Your task to perform on an android device: Open ESPN.com Image 0: 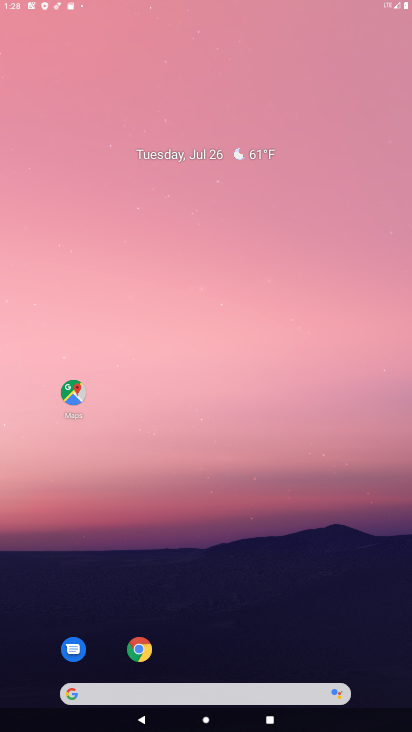
Step 0: click (142, 649)
Your task to perform on an android device: Open ESPN.com Image 1: 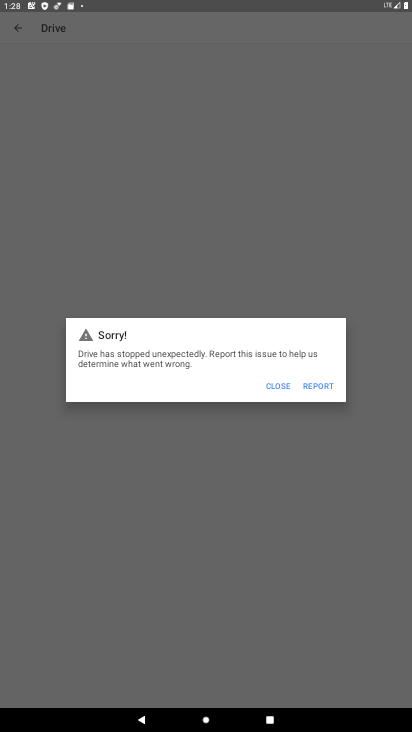
Step 1: press home button
Your task to perform on an android device: Open ESPN.com Image 2: 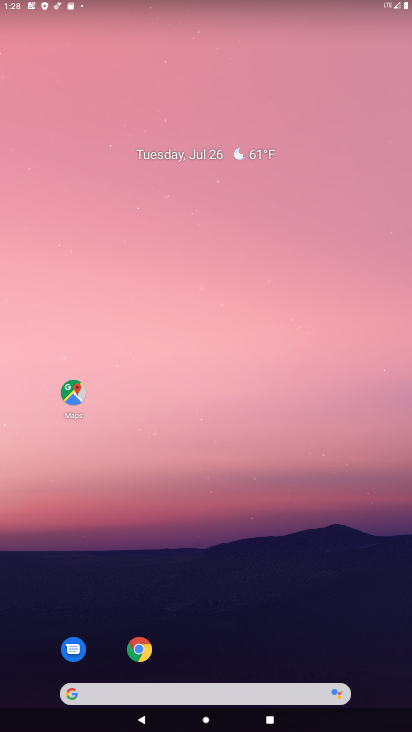
Step 2: click (135, 656)
Your task to perform on an android device: Open ESPN.com Image 3: 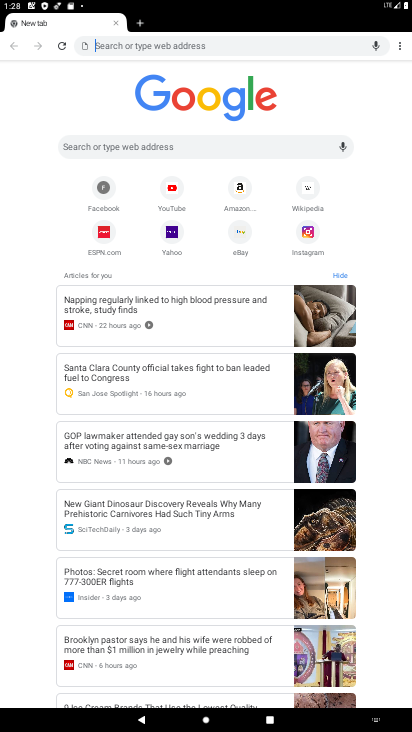
Step 3: click (103, 241)
Your task to perform on an android device: Open ESPN.com Image 4: 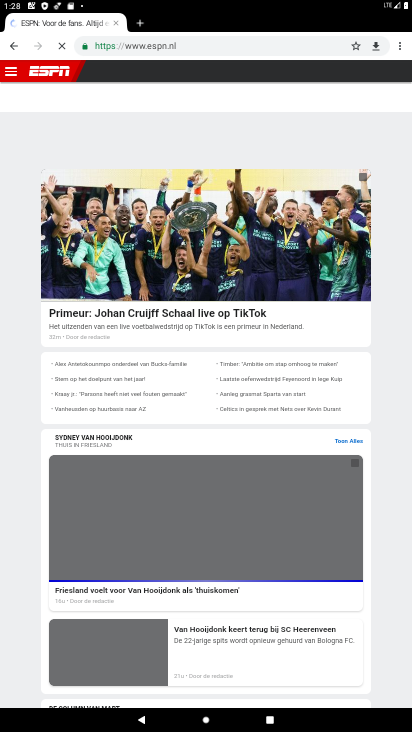
Step 4: task complete